Your task to perform on an android device: Open calendar and show me the second week of next month Image 0: 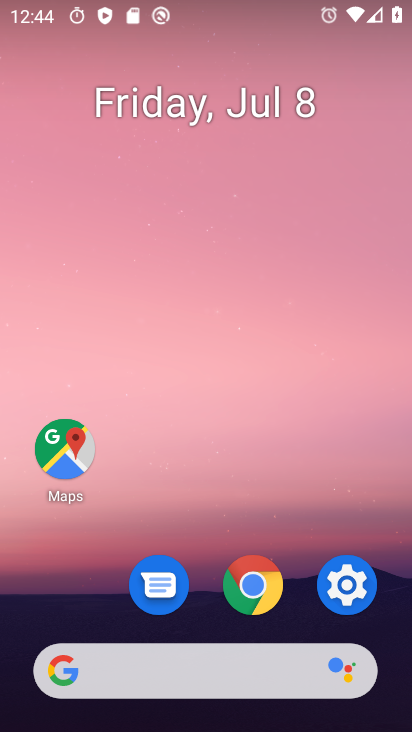
Step 0: drag from (283, 678) to (182, 117)
Your task to perform on an android device: Open calendar and show me the second week of next month Image 1: 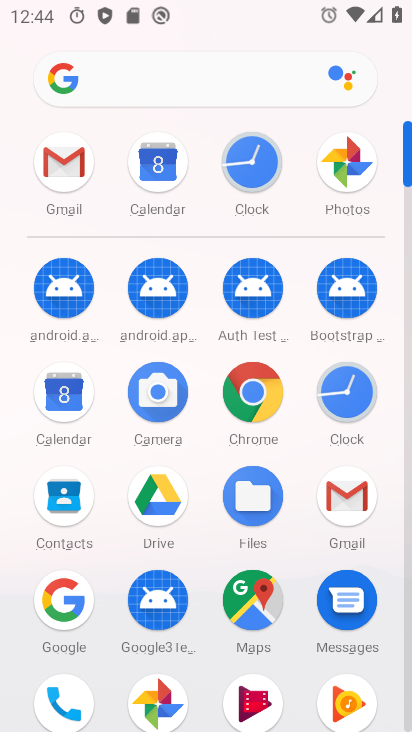
Step 1: click (69, 398)
Your task to perform on an android device: Open calendar and show me the second week of next month Image 2: 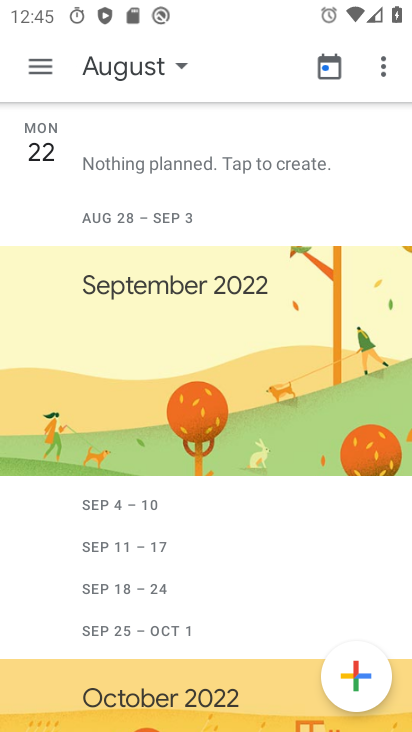
Step 2: click (45, 65)
Your task to perform on an android device: Open calendar and show me the second week of next month Image 3: 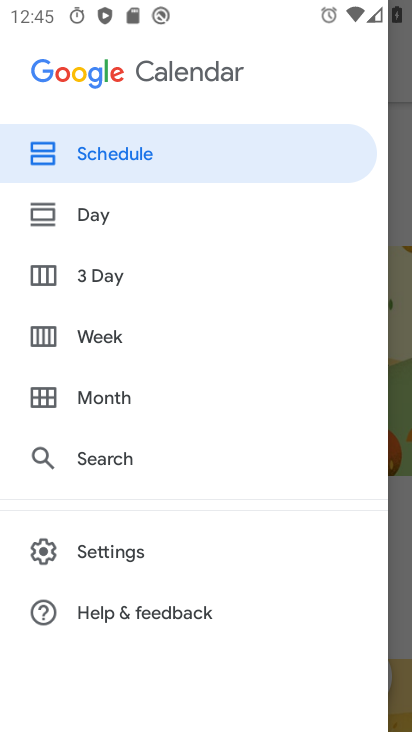
Step 3: click (117, 401)
Your task to perform on an android device: Open calendar and show me the second week of next month Image 4: 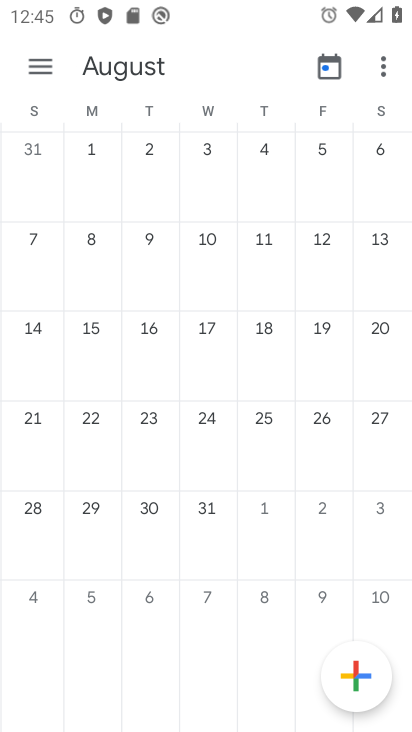
Step 4: click (91, 243)
Your task to perform on an android device: Open calendar and show me the second week of next month Image 5: 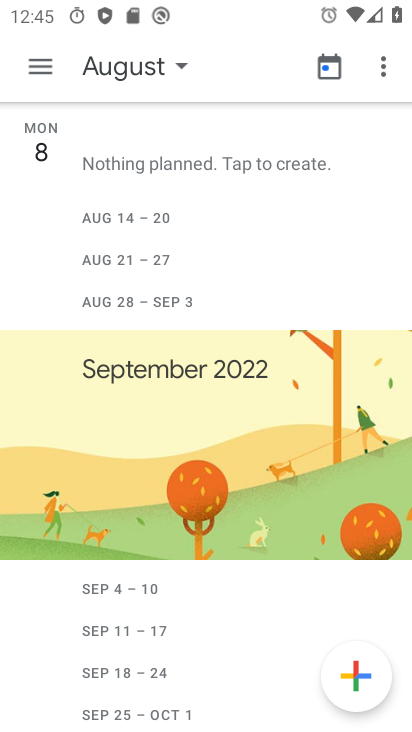
Step 5: task complete